Your task to perform on an android device: change alarm snooze length Image 0: 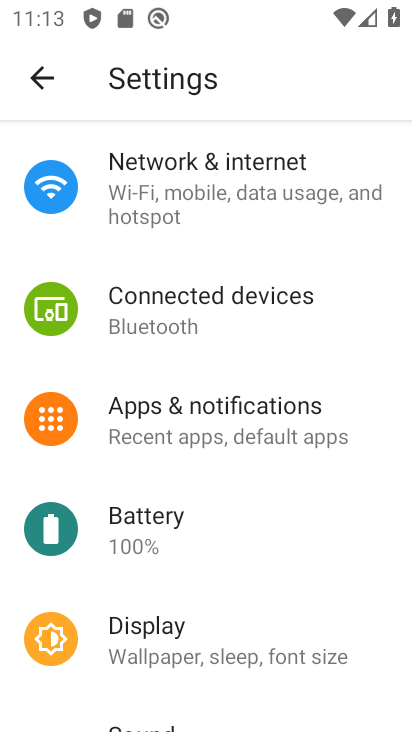
Step 0: press back button
Your task to perform on an android device: change alarm snooze length Image 1: 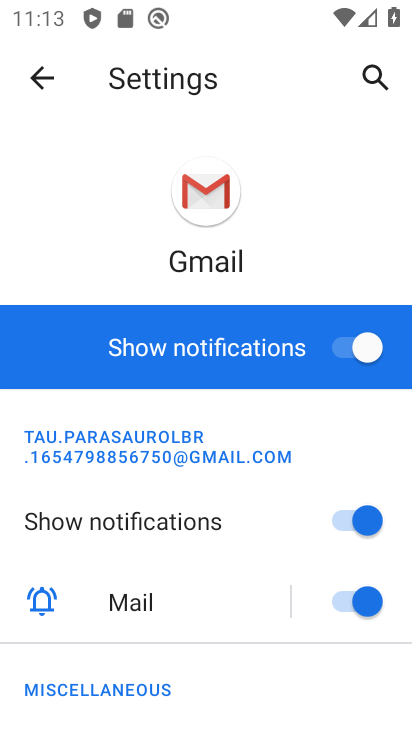
Step 1: press back button
Your task to perform on an android device: change alarm snooze length Image 2: 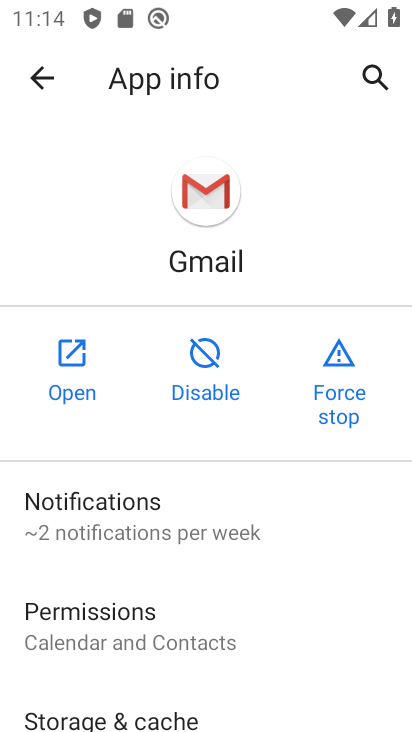
Step 2: press back button
Your task to perform on an android device: change alarm snooze length Image 3: 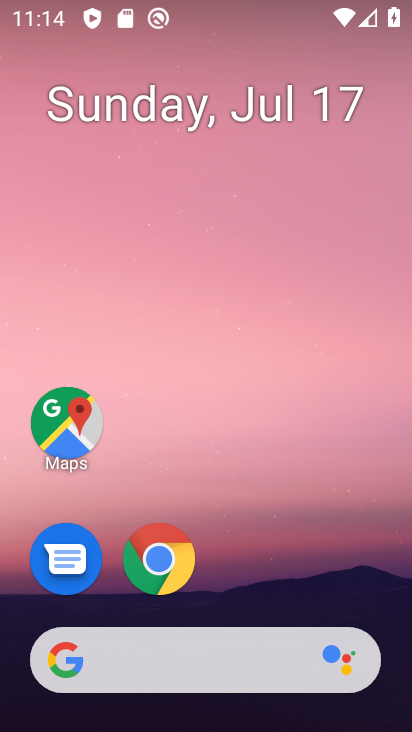
Step 3: drag from (259, 559) to (340, 1)
Your task to perform on an android device: change alarm snooze length Image 4: 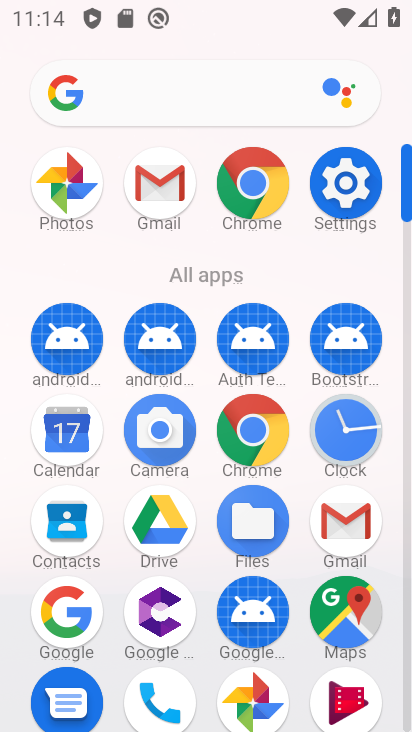
Step 4: click (345, 422)
Your task to perform on an android device: change alarm snooze length Image 5: 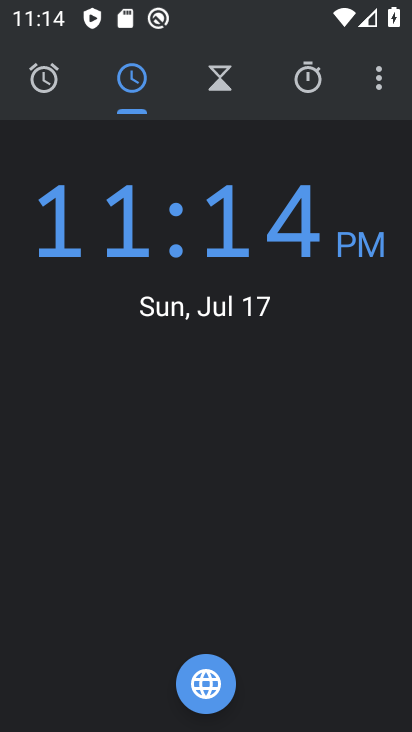
Step 5: click (379, 69)
Your task to perform on an android device: change alarm snooze length Image 6: 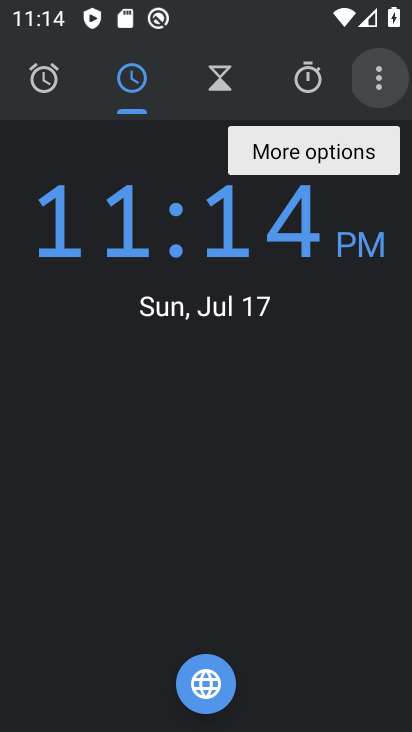
Step 6: click (379, 69)
Your task to perform on an android device: change alarm snooze length Image 7: 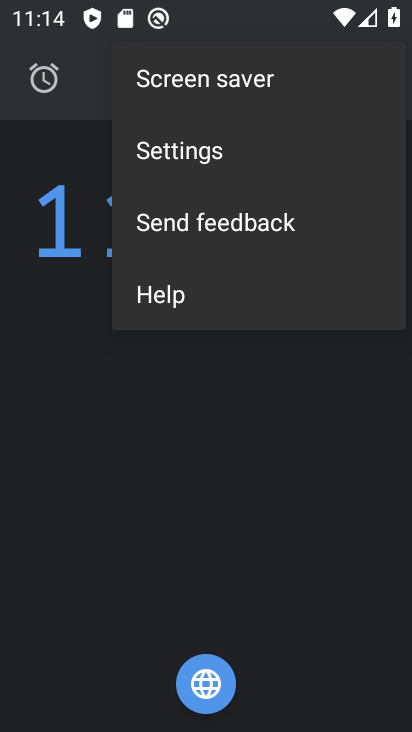
Step 7: click (183, 166)
Your task to perform on an android device: change alarm snooze length Image 8: 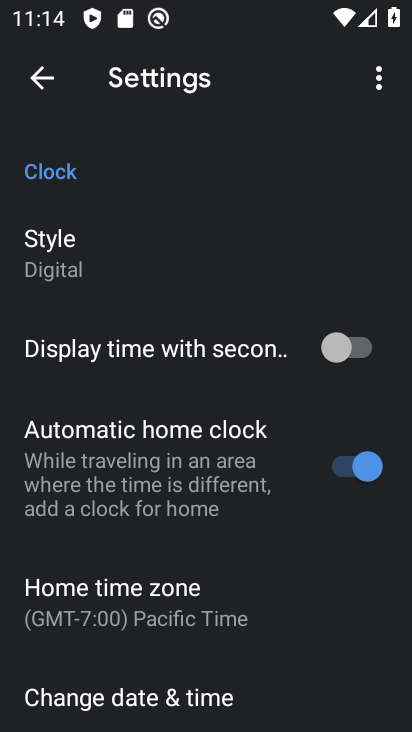
Step 8: drag from (183, 663) to (270, 212)
Your task to perform on an android device: change alarm snooze length Image 9: 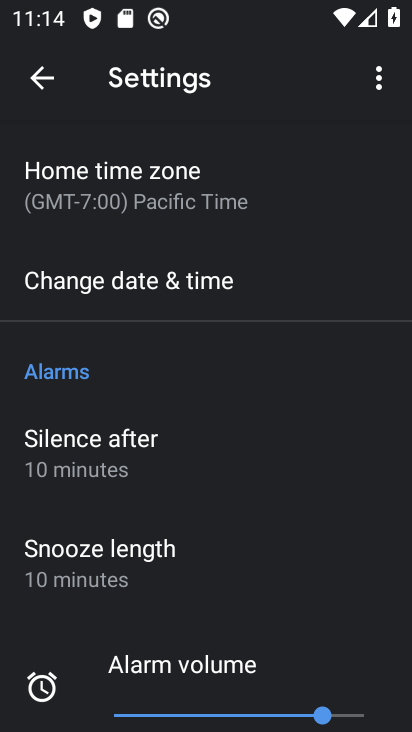
Step 9: click (147, 567)
Your task to perform on an android device: change alarm snooze length Image 10: 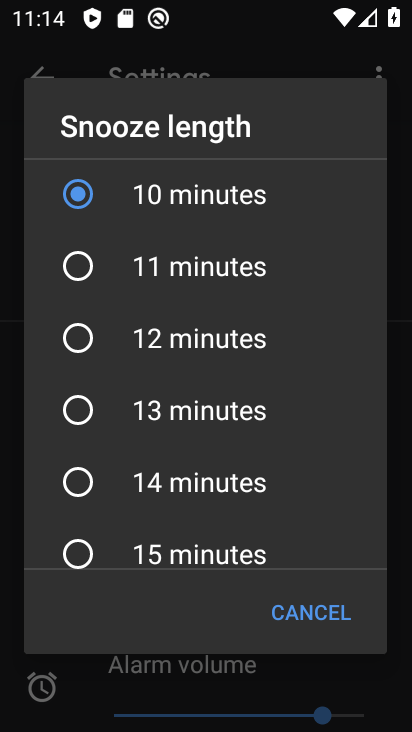
Step 10: click (71, 259)
Your task to perform on an android device: change alarm snooze length Image 11: 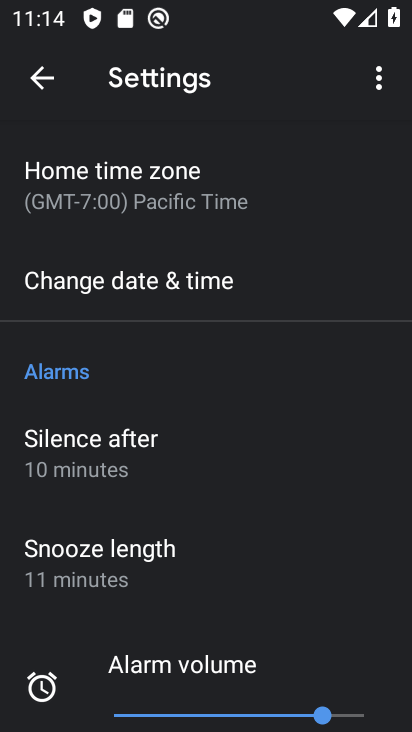
Step 11: task complete